Your task to perform on an android device: read, delete, or share a saved page in the chrome app Image 0: 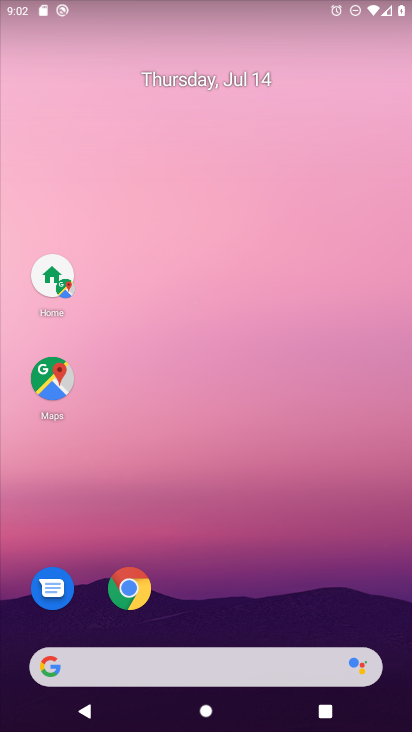
Step 0: click (130, 587)
Your task to perform on an android device: read, delete, or share a saved page in the chrome app Image 1: 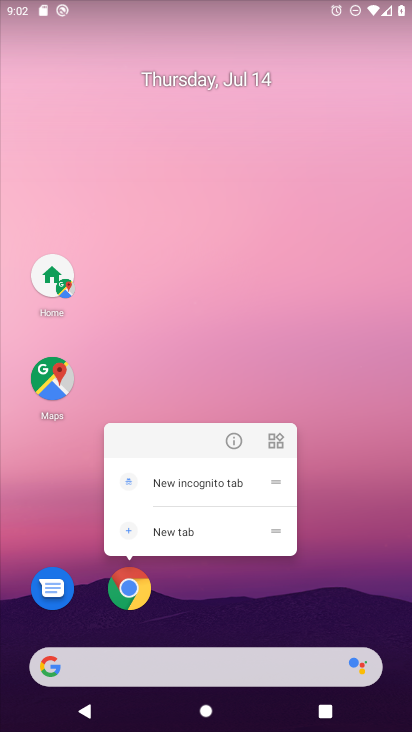
Step 1: click (153, 567)
Your task to perform on an android device: read, delete, or share a saved page in the chrome app Image 2: 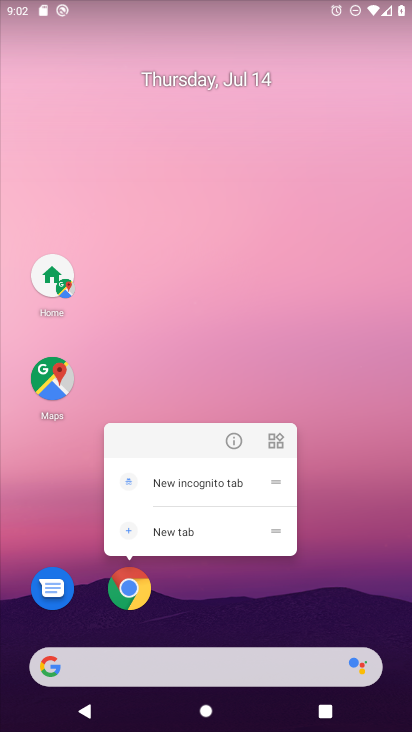
Step 2: task complete